Your task to perform on an android device: Clear the shopping cart on target. Search for usb-a on target, select the first entry, and add it to the cart. Image 0: 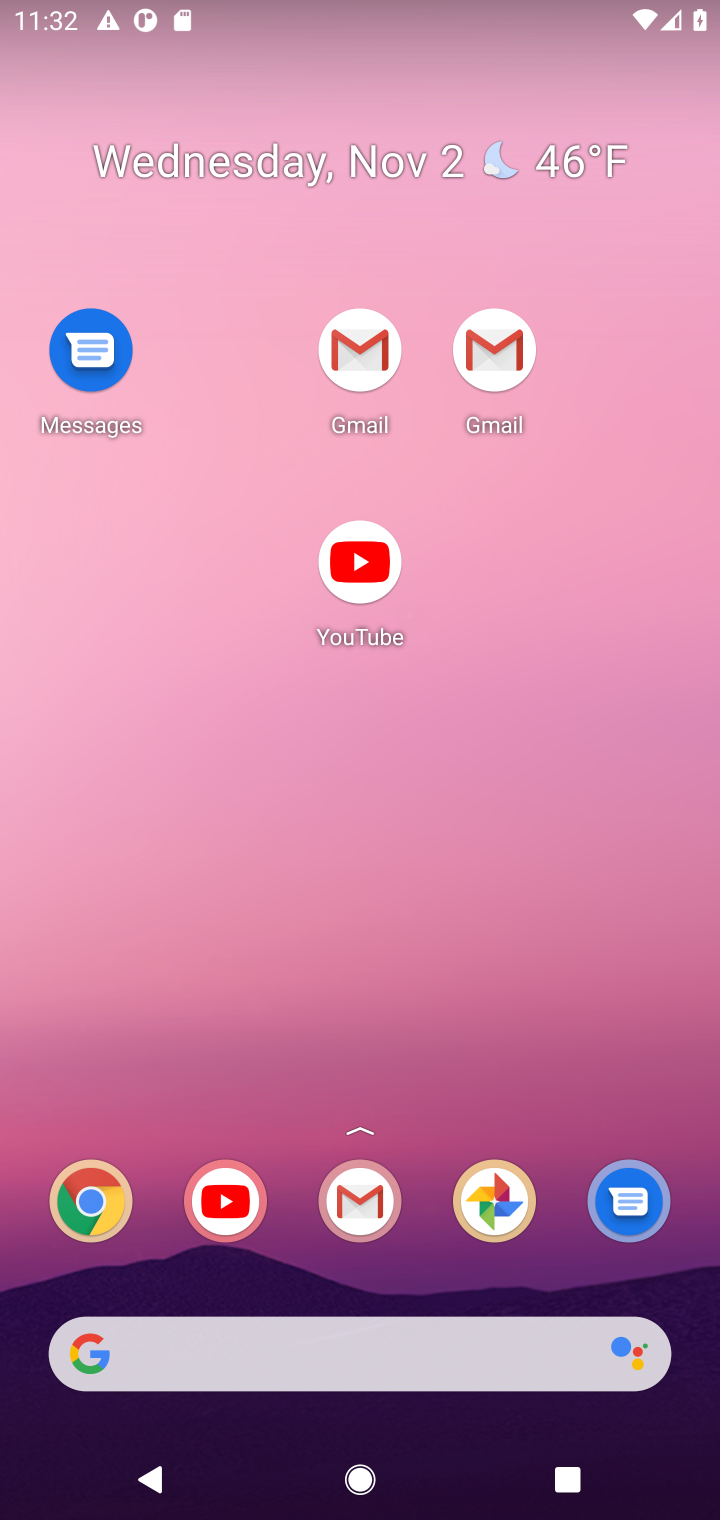
Step 0: drag from (417, 1295) to (576, 501)
Your task to perform on an android device: Clear the shopping cart on target. Search for usb-a on target, select the first entry, and add it to the cart. Image 1: 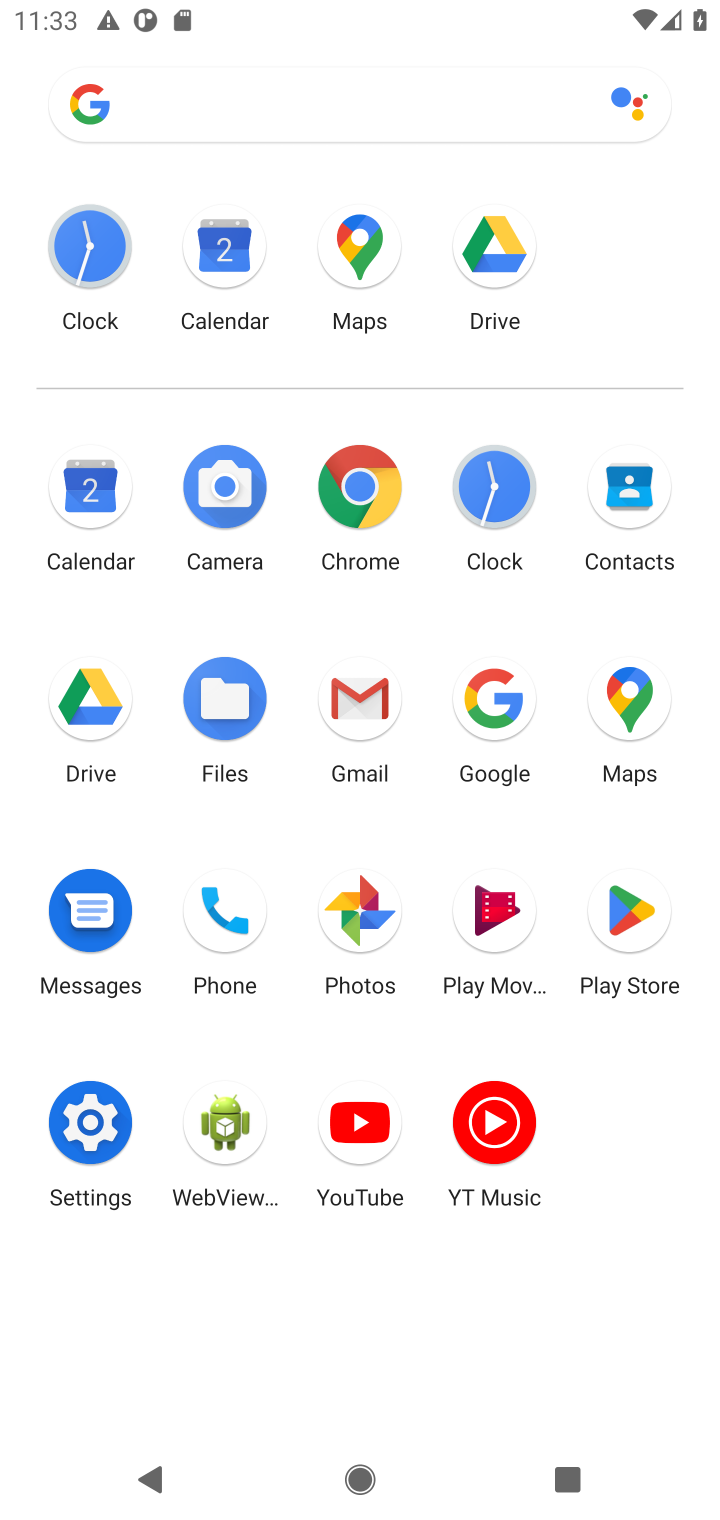
Step 1: click (357, 485)
Your task to perform on an android device: Clear the shopping cart on target. Search for usb-a on target, select the first entry, and add it to the cart. Image 2: 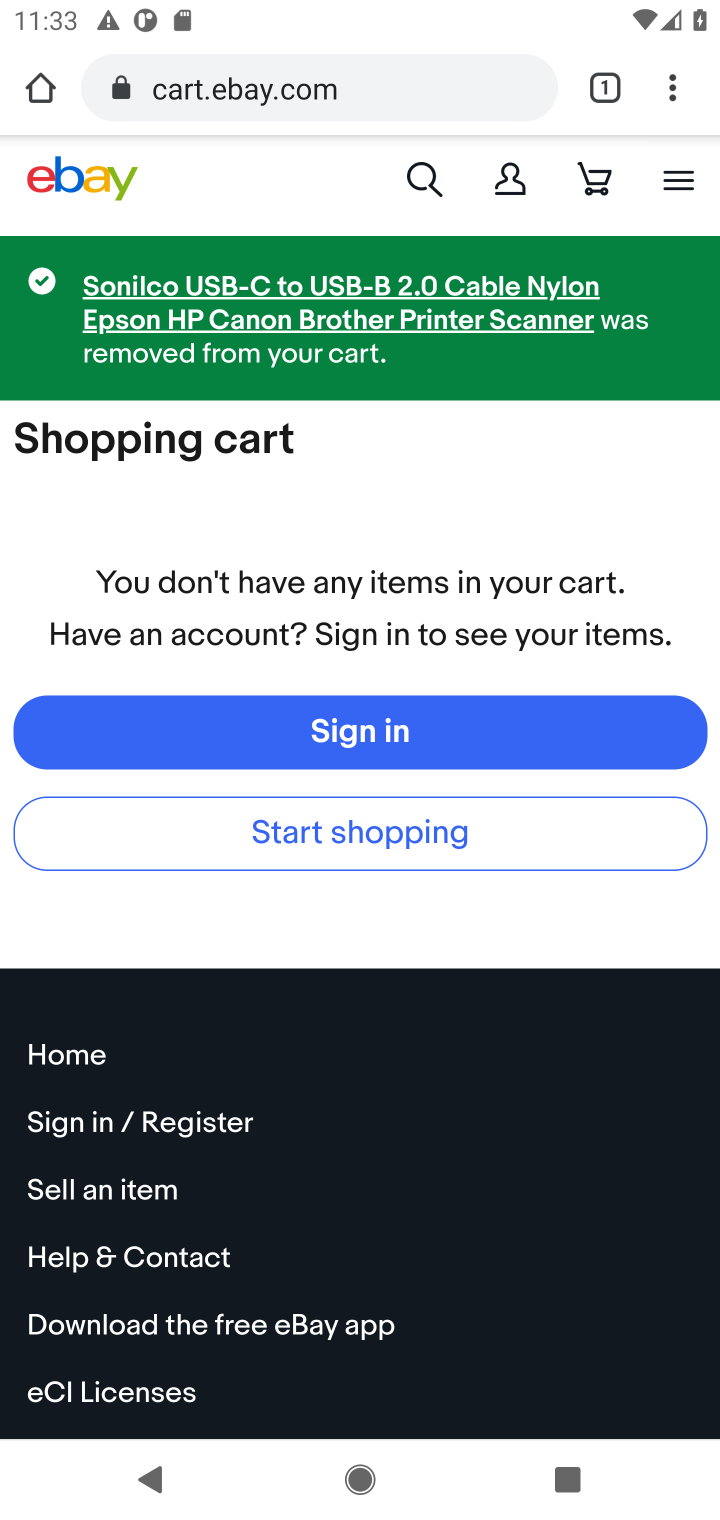
Step 2: click (396, 99)
Your task to perform on an android device: Clear the shopping cart on target. Search for usb-a on target, select the first entry, and add it to the cart. Image 3: 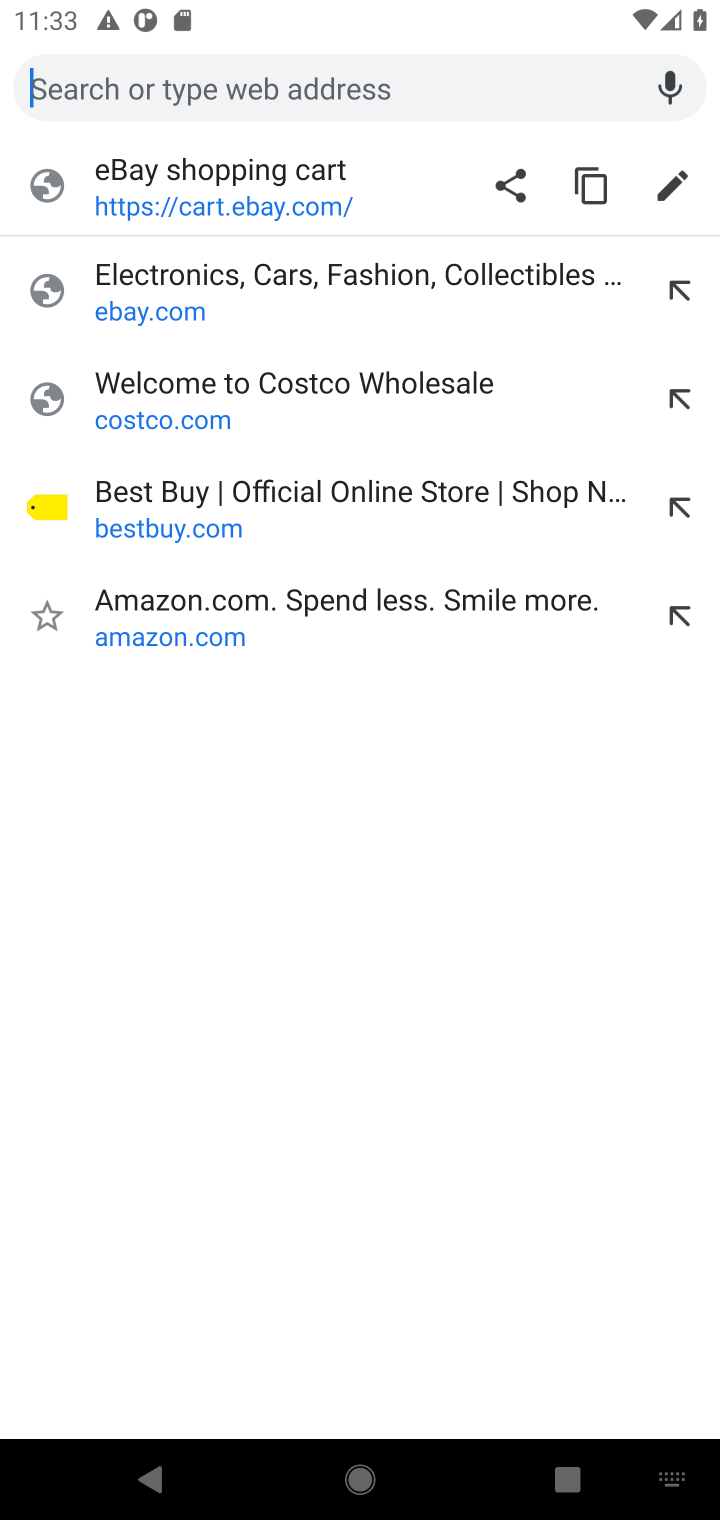
Step 3: type "target.com"
Your task to perform on an android device: Clear the shopping cart on target. Search for usb-a on target, select the first entry, and add it to the cart. Image 4: 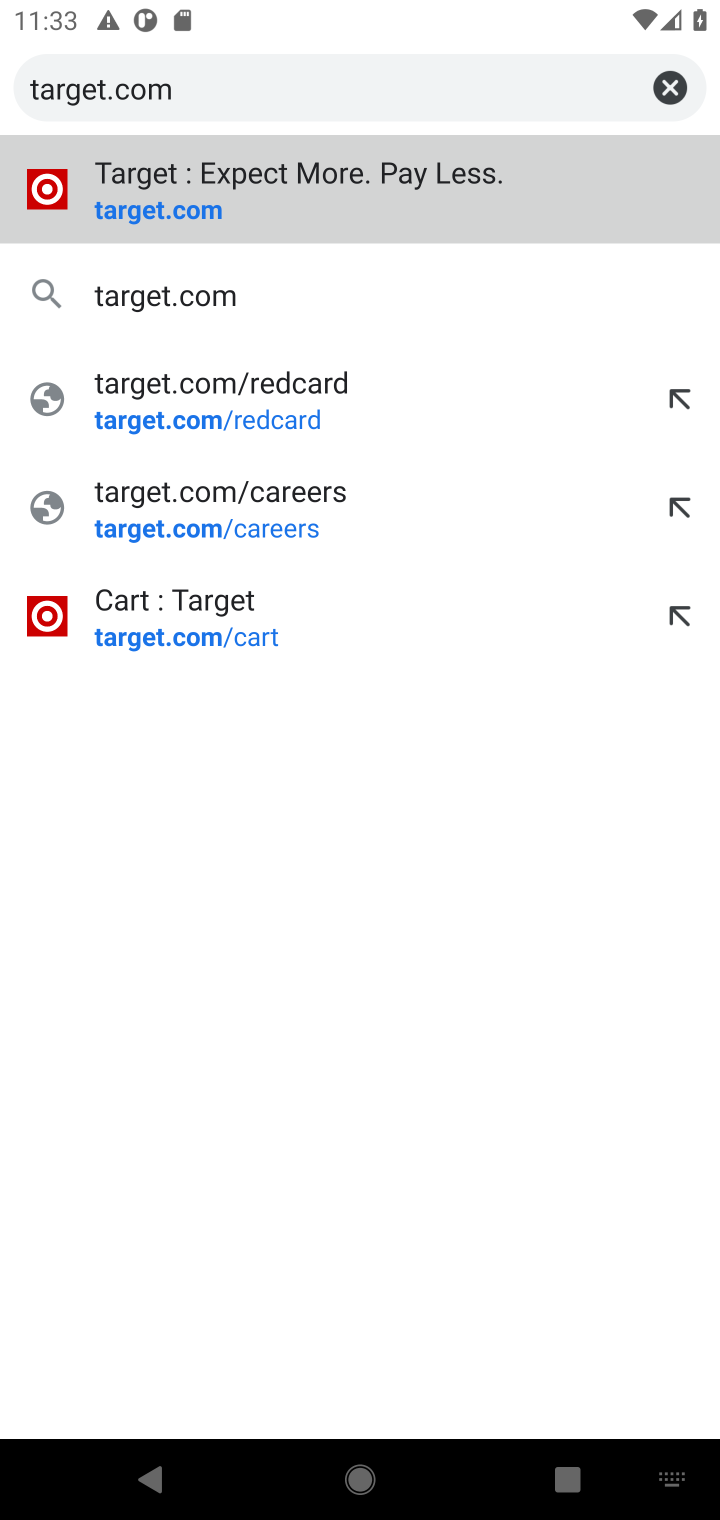
Step 4: press enter
Your task to perform on an android device: Clear the shopping cart on target. Search for usb-a on target, select the first entry, and add it to the cart. Image 5: 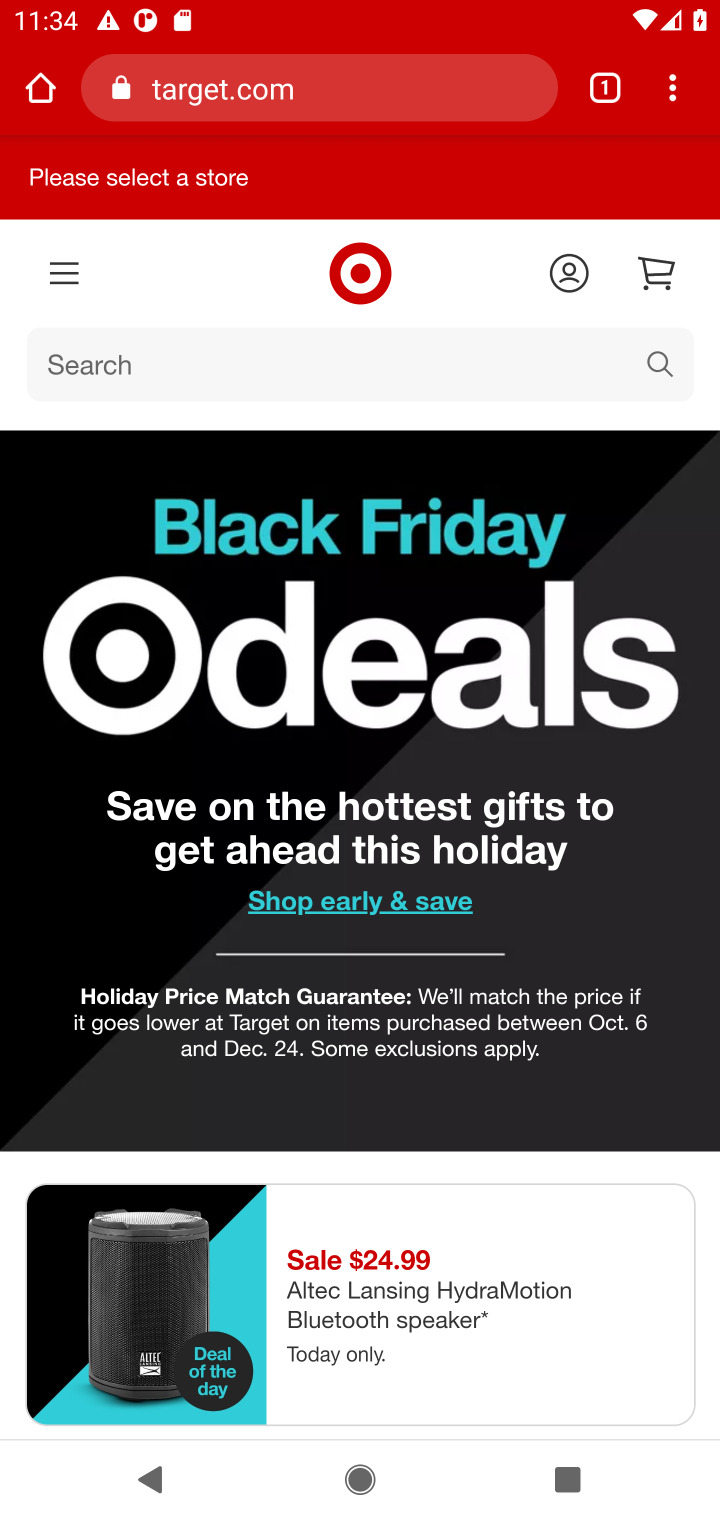
Step 5: click (661, 271)
Your task to perform on an android device: Clear the shopping cart on target. Search for usb-a on target, select the first entry, and add it to the cart. Image 6: 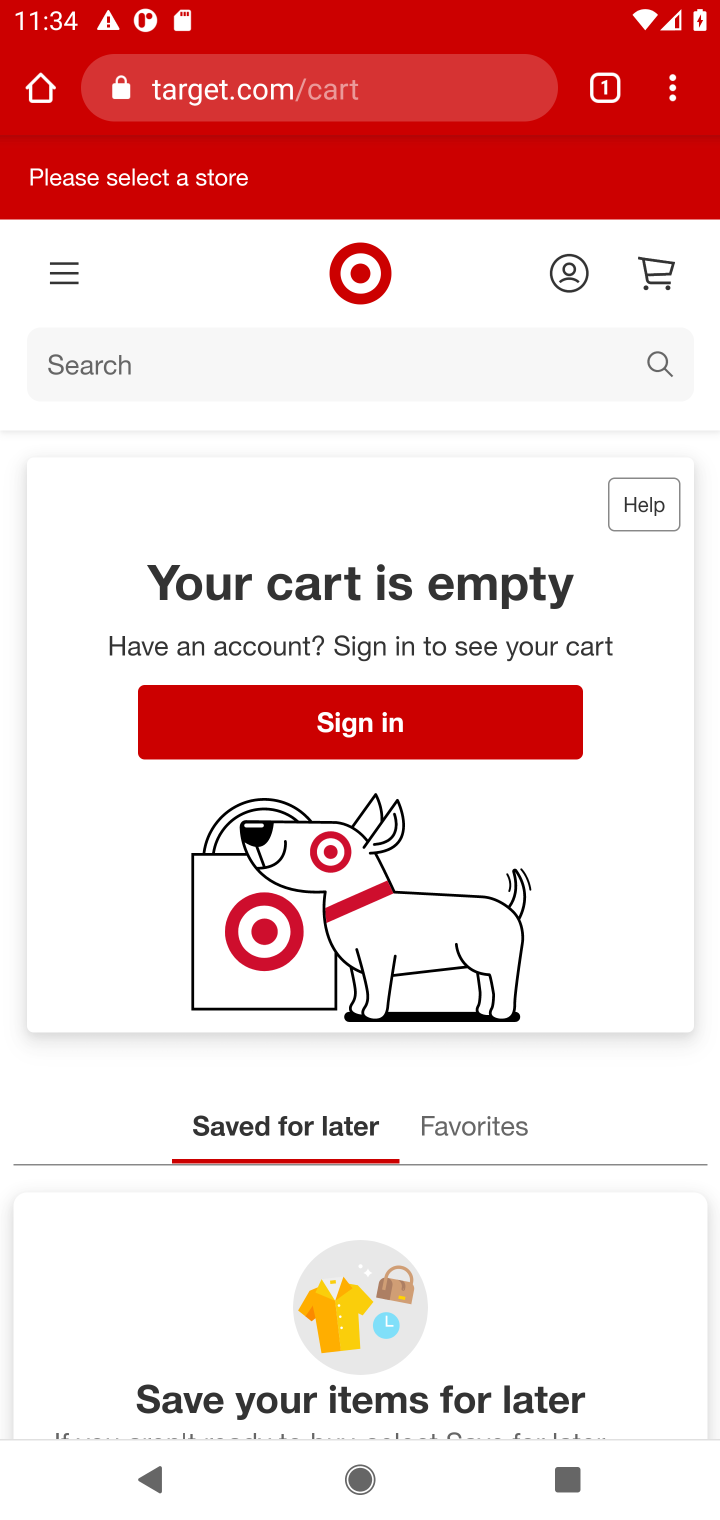
Step 6: click (304, 385)
Your task to perform on an android device: Clear the shopping cart on target. Search for usb-a on target, select the first entry, and add it to the cart. Image 7: 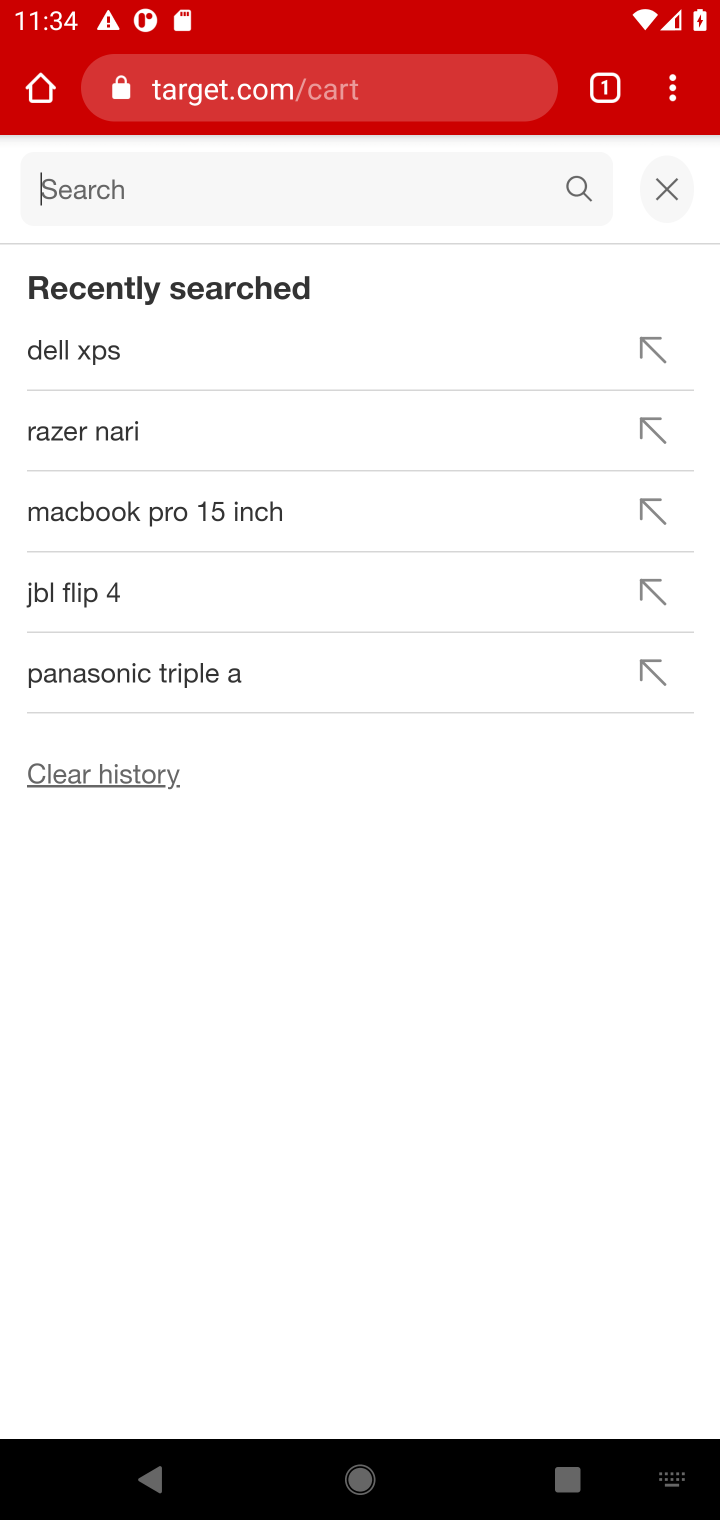
Step 7: type "usb-a"
Your task to perform on an android device: Clear the shopping cart on target. Search for usb-a on target, select the first entry, and add it to the cart. Image 8: 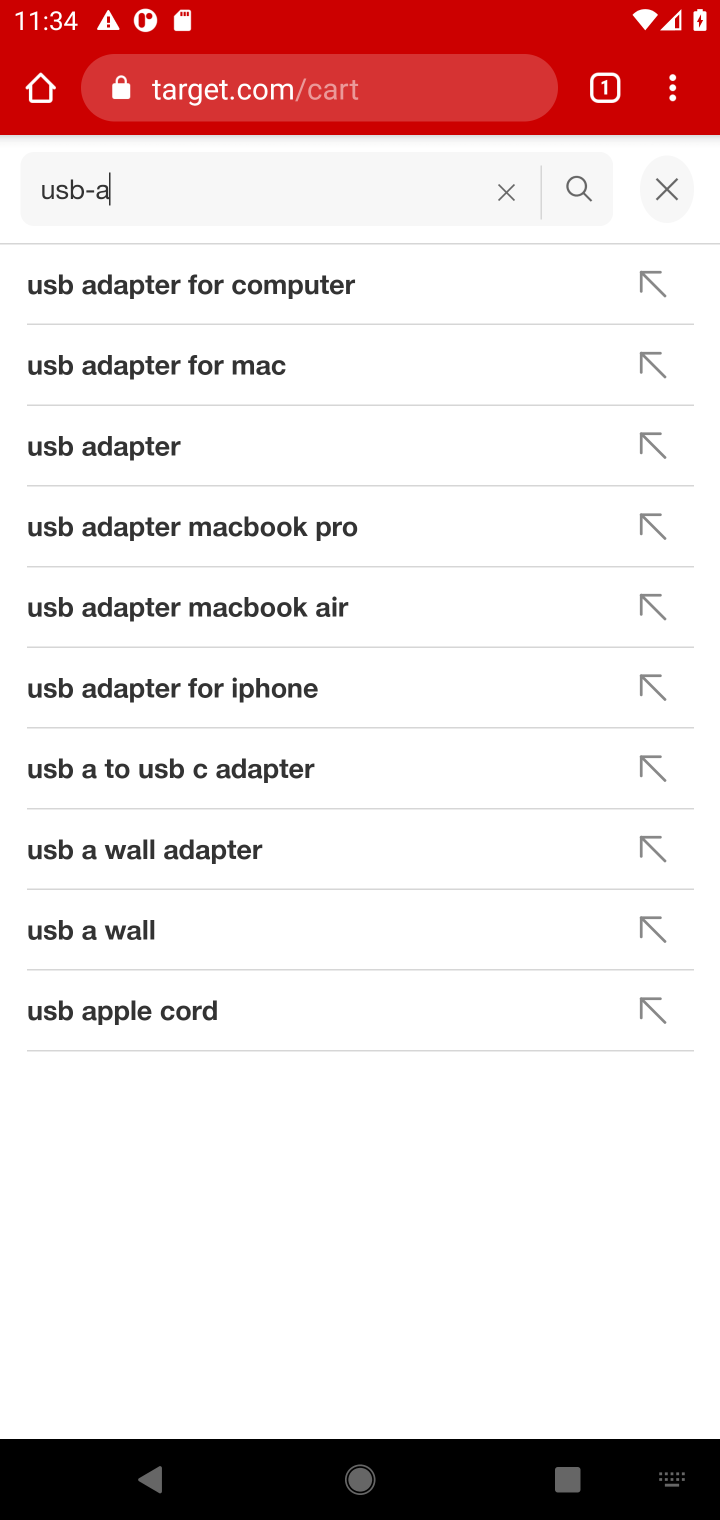
Step 8: press enter
Your task to perform on an android device: Clear the shopping cart on target. Search for usb-a on target, select the first entry, and add it to the cart. Image 9: 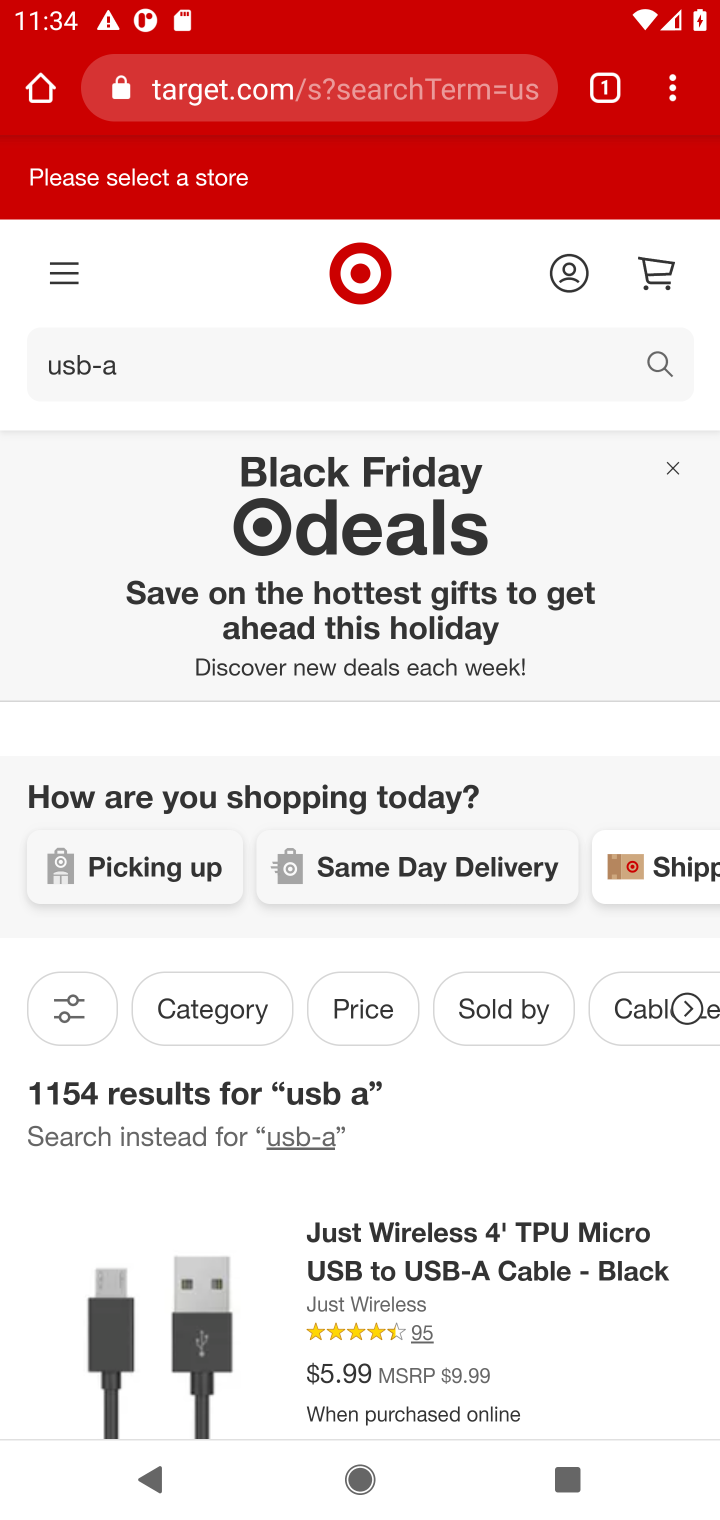
Step 9: drag from (445, 1330) to (411, 792)
Your task to perform on an android device: Clear the shopping cart on target. Search for usb-a on target, select the first entry, and add it to the cart. Image 10: 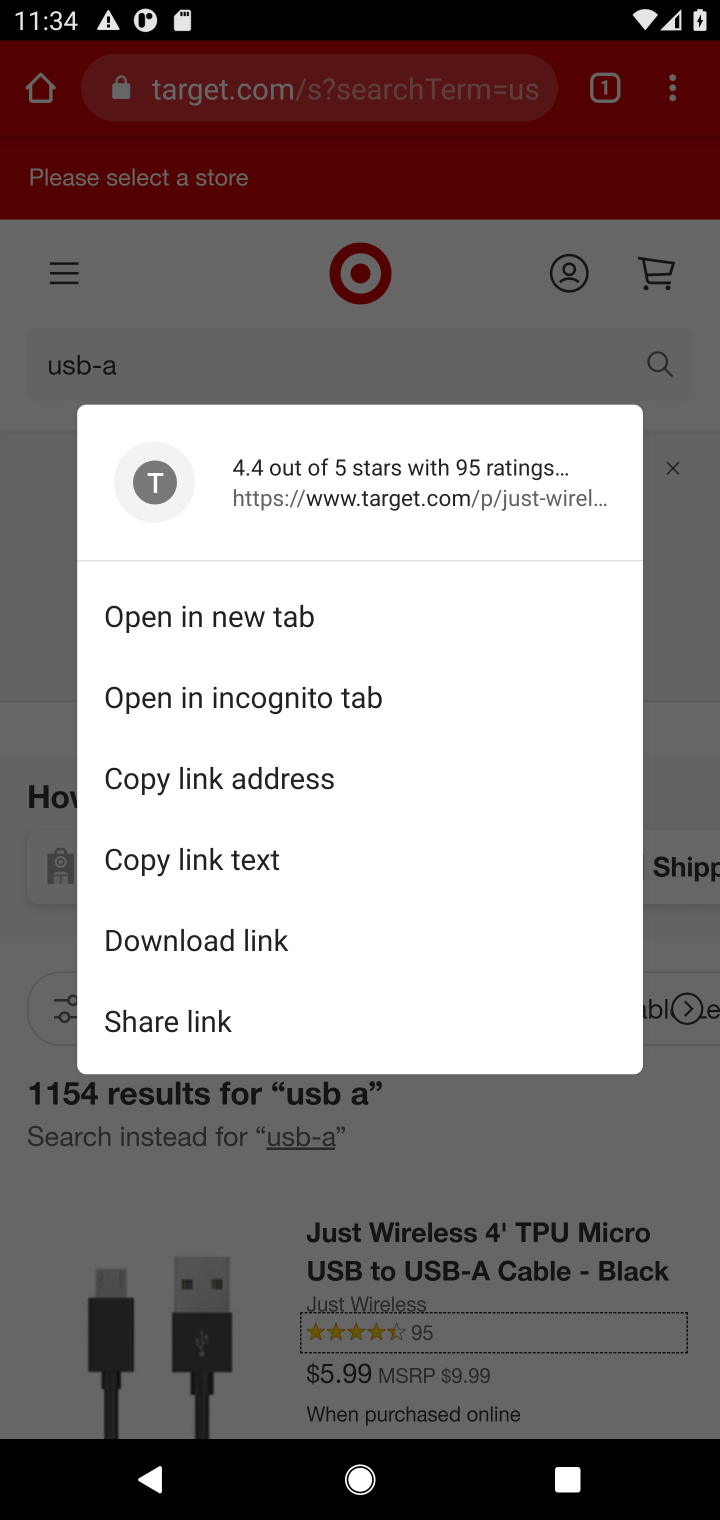
Step 10: click (438, 275)
Your task to perform on an android device: Clear the shopping cart on target. Search for usb-a on target, select the first entry, and add it to the cart. Image 11: 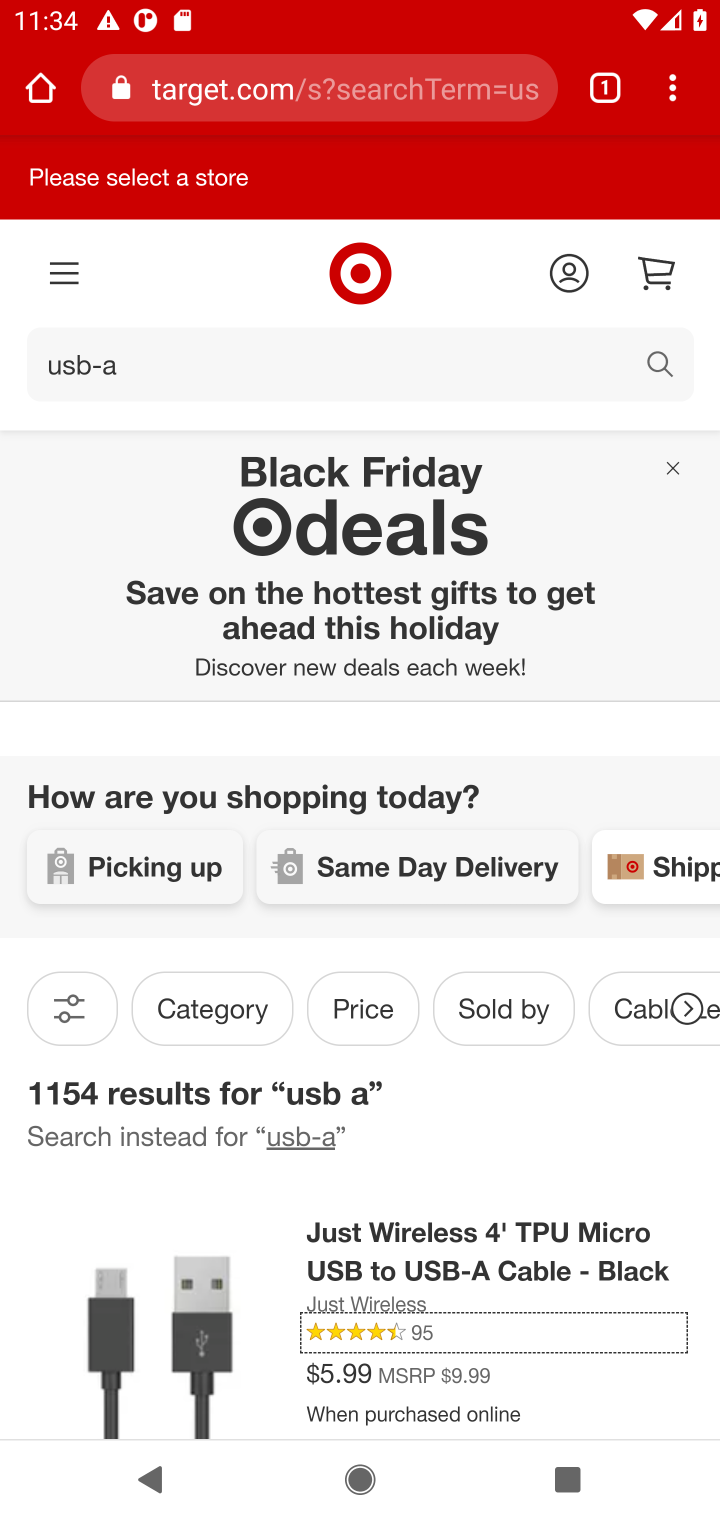
Step 11: drag from (478, 1184) to (447, 692)
Your task to perform on an android device: Clear the shopping cart on target. Search for usb-a on target, select the first entry, and add it to the cart. Image 12: 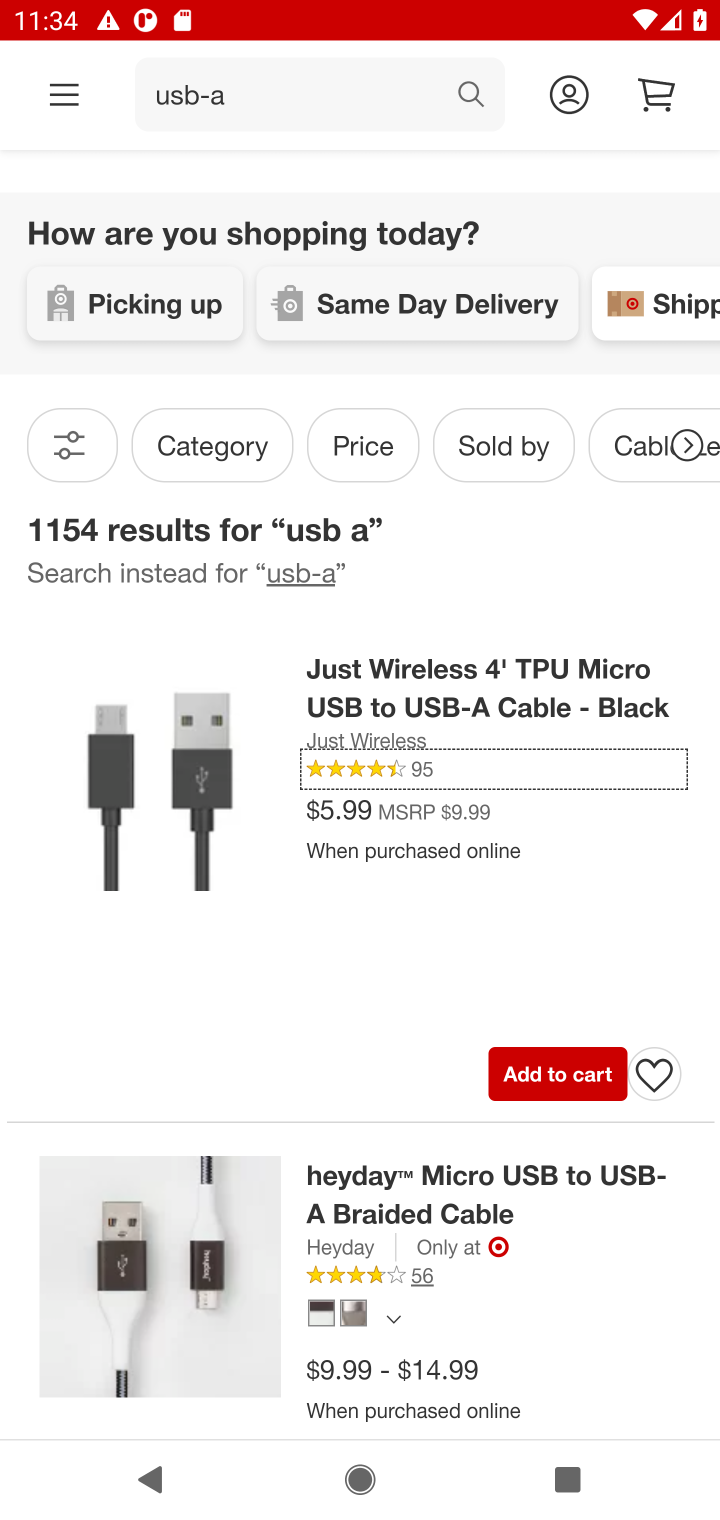
Step 12: click (563, 1069)
Your task to perform on an android device: Clear the shopping cart on target. Search for usb-a on target, select the first entry, and add it to the cart. Image 13: 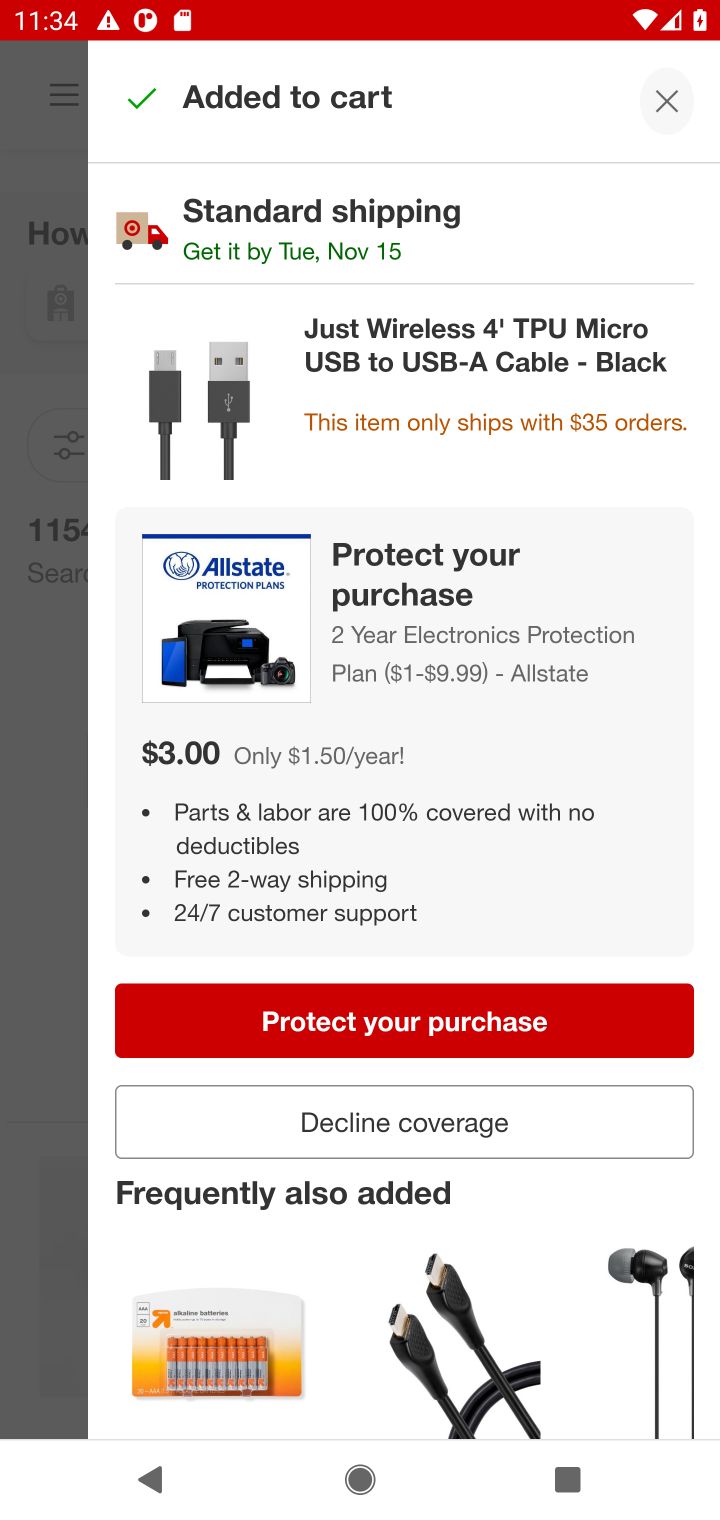
Step 13: click (546, 1121)
Your task to perform on an android device: Clear the shopping cart on target. Search for usb-a on target, select the first entry, and add it to the cart. Image 14: 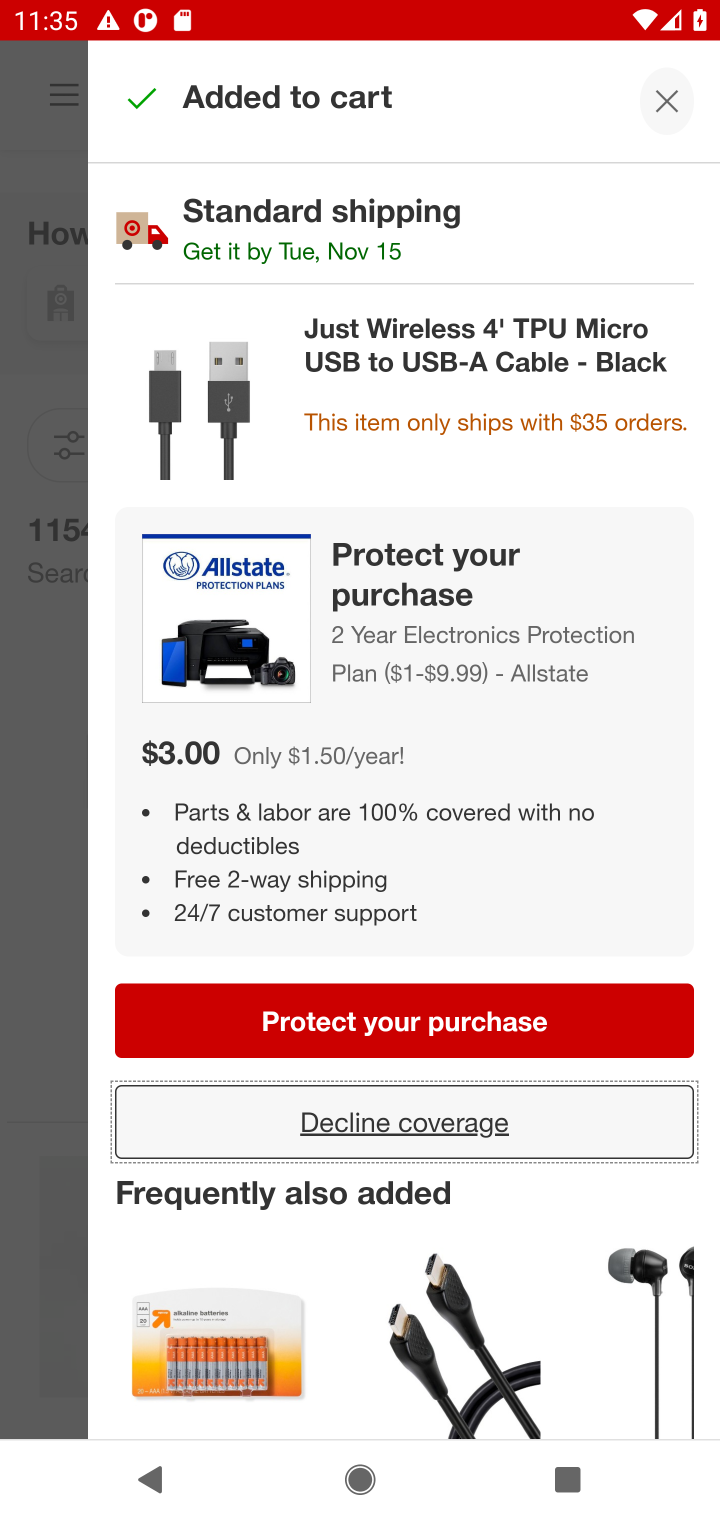
Step 14: click (656, 112)
Your task to perform on an android device: Clear the shopping cart on target. Search for usb-a on target, select the first entry, and add it to the cart. Image 15: 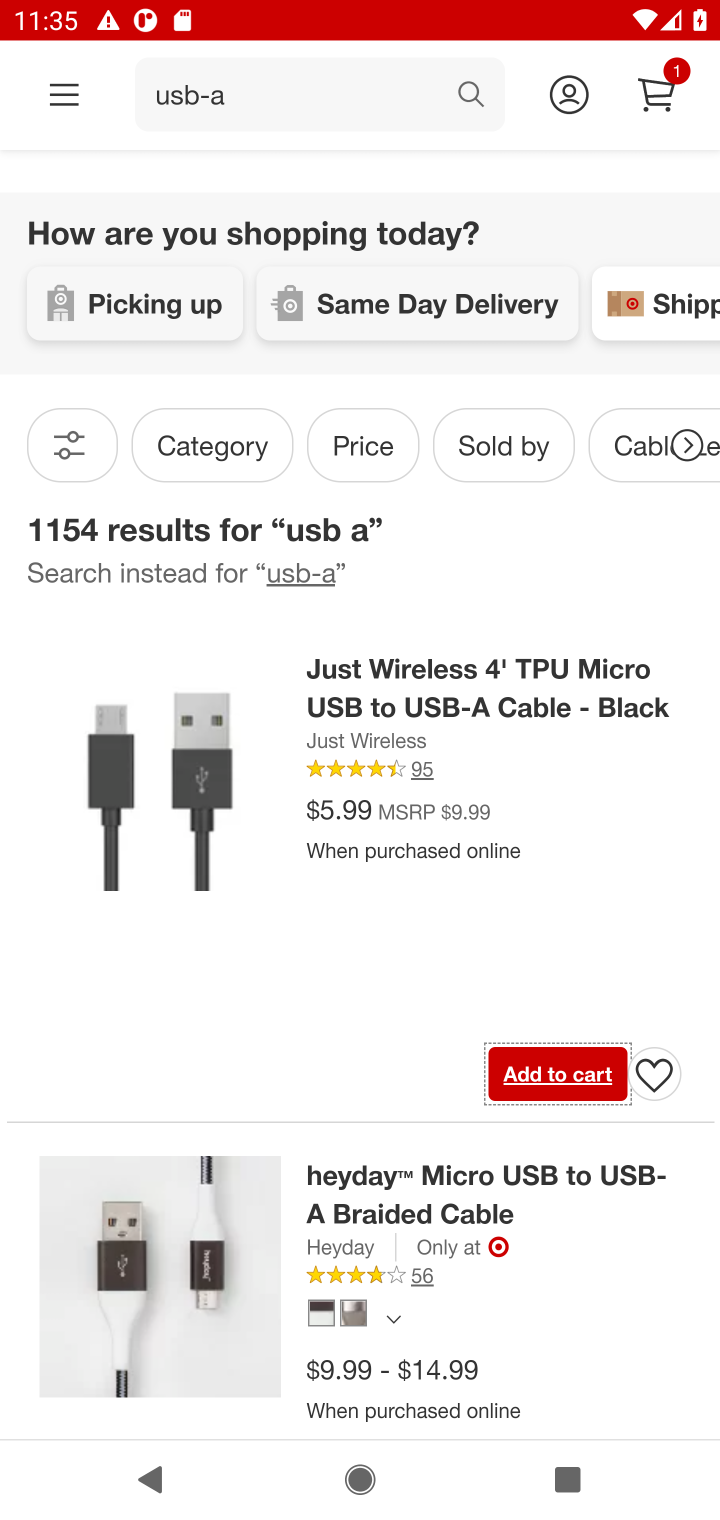
Step 15: task complete